Your task to perform on an android device: Go to ESPN.com Image 0: 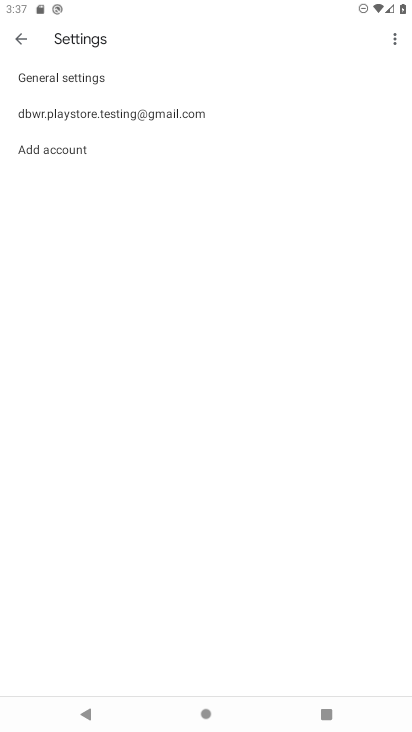
Step 0: press home button
Your task to perform on an android device: Go to ESPN.com Image 1: 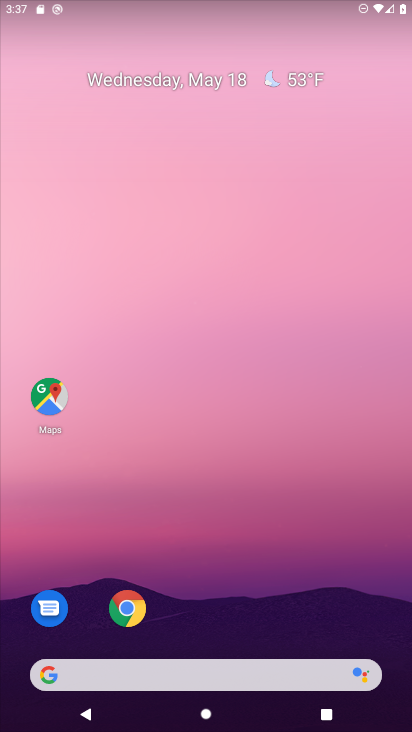
Step 1: click (128, 608)
Your task to perform on an android device: Go to ESPN.com Image 2: 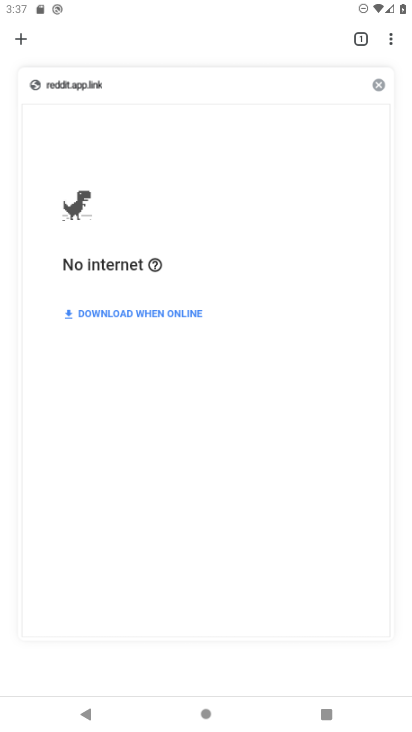
Step 2: click (362, 37)
Your task to perform on an android device: Go to ESPN.com Image 3: 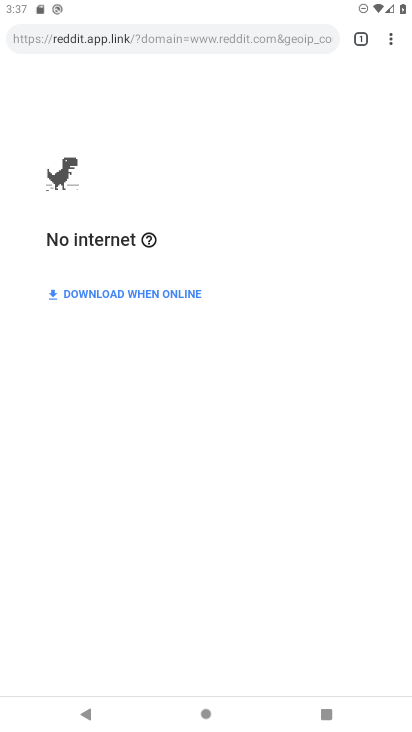
Step 3: click (363, 41)
Your task to perform on an android device: Go to ESPN.com Image 4: 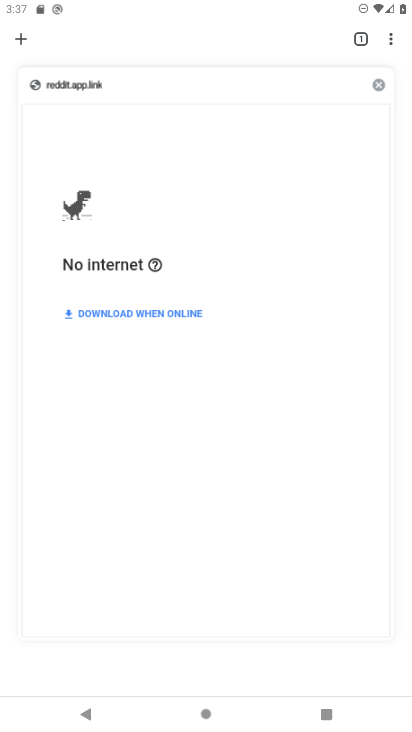
Step 4: click (381, 87)
Your task to perform on an android device: Go to ESPN.com Image 5: 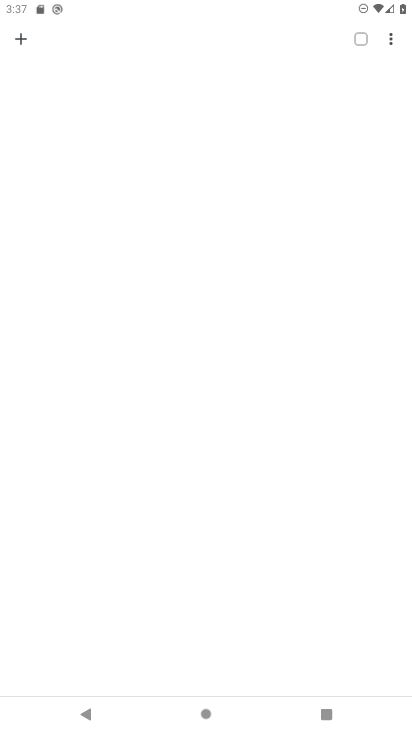
Step 5: press home button
Your task to perform on an android device: Go to ESPN.com Image 6: 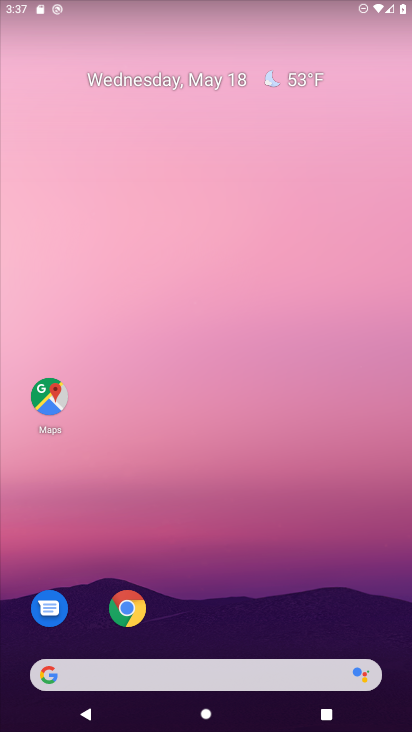
Step 6: click (116, 609)
Your task to perform on an android device: Go to ESPN.com Image 7: 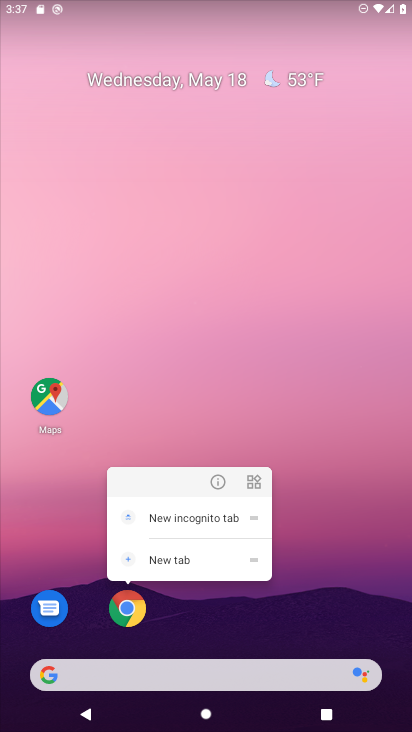
Step 7: click (125, 599)
Your task to perform on an android device: Go to ESPN.com Image 8: 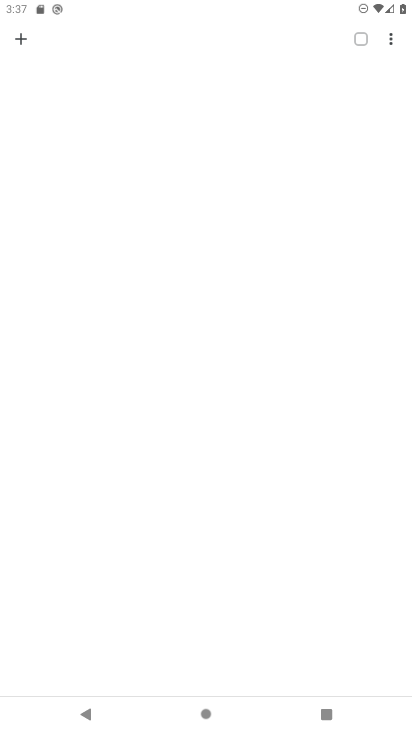
Step 8: click (17, 25)
Your task to perform on an android device: Go to ESPN.com Image 9: 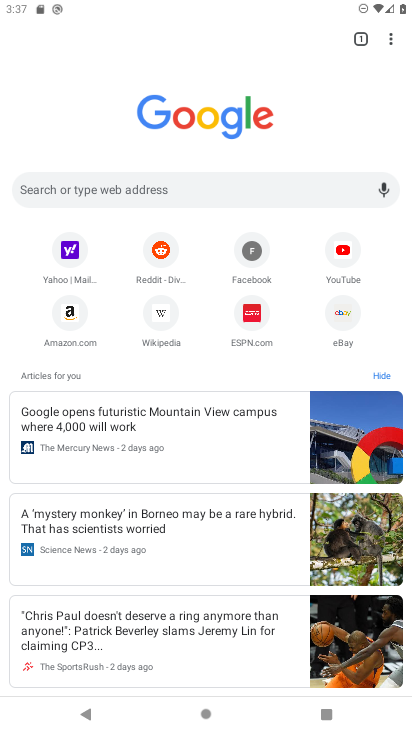
Step 9: click (254, 312)
Your task to perform on an android device: Go to ESPN.com Image 10: 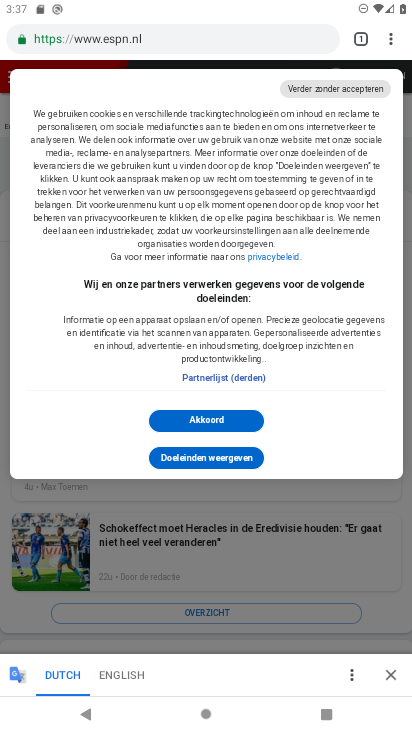
Step 10: task complete